Your task to perform on an android device: turn on sleep mode Image 0: 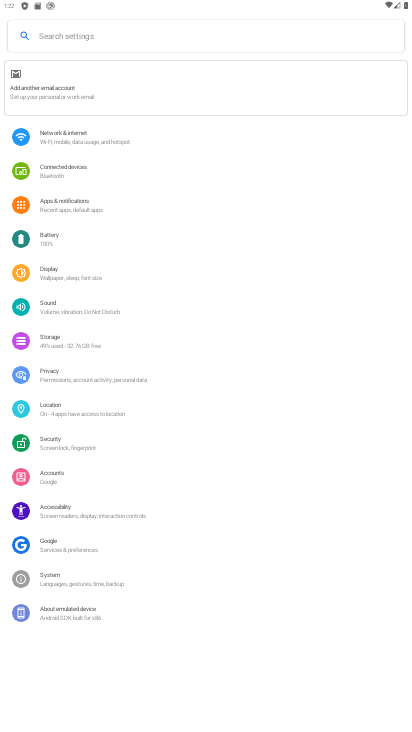
Step 0: press home button
Your task to perform on an android device: turn on sleep mode Image 1: 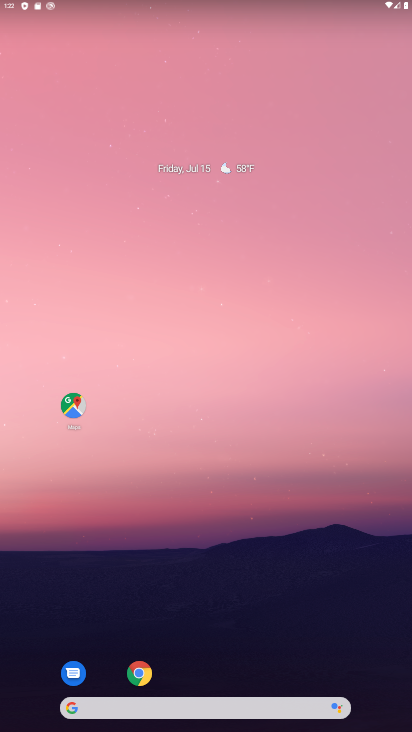
Step 1: drag from (275, 646) to (260, 268)
Your task to perform on an android device: turn on sleep mode Image 2: 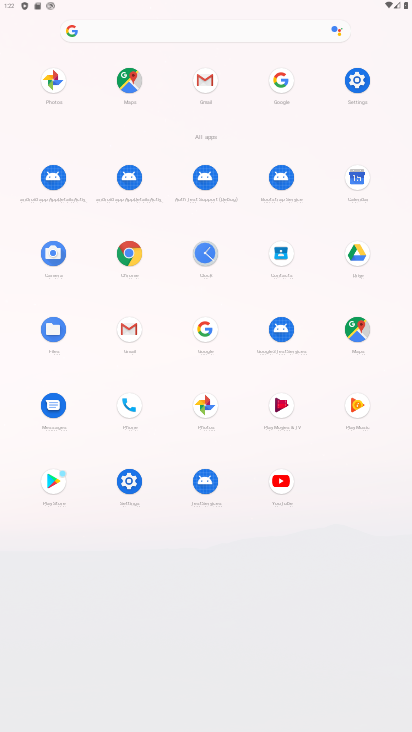
Step 2: click (362, 79)
Your task to perform on an android device: turn on sleep mode Image 3: 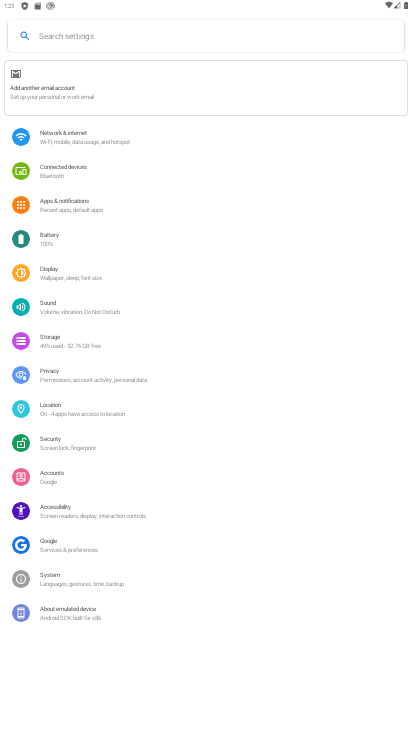
Step 3: click (90, 274)
Your task to perform on an android device: turn on sleep mode Image 4: 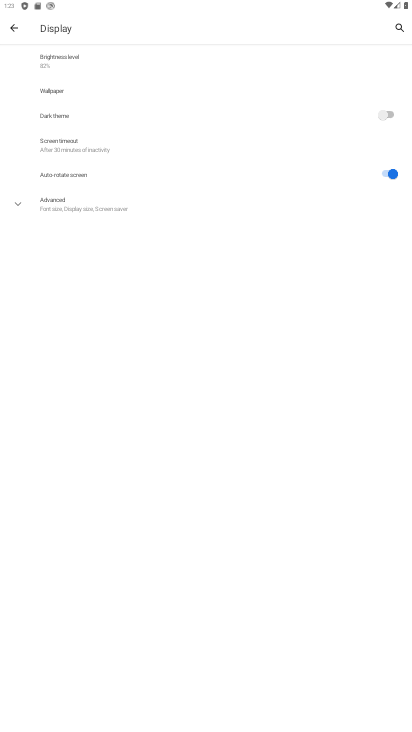
Step 4: click (77, 144)
Your task to perform on an android device: turn on sleep mode Image 5: 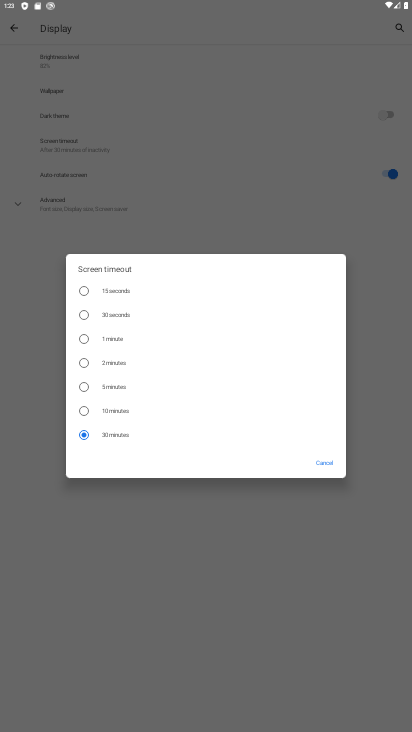
Step 5: task complete